Your task to perform on an android device: What's a good restaurant near me? Image 0: 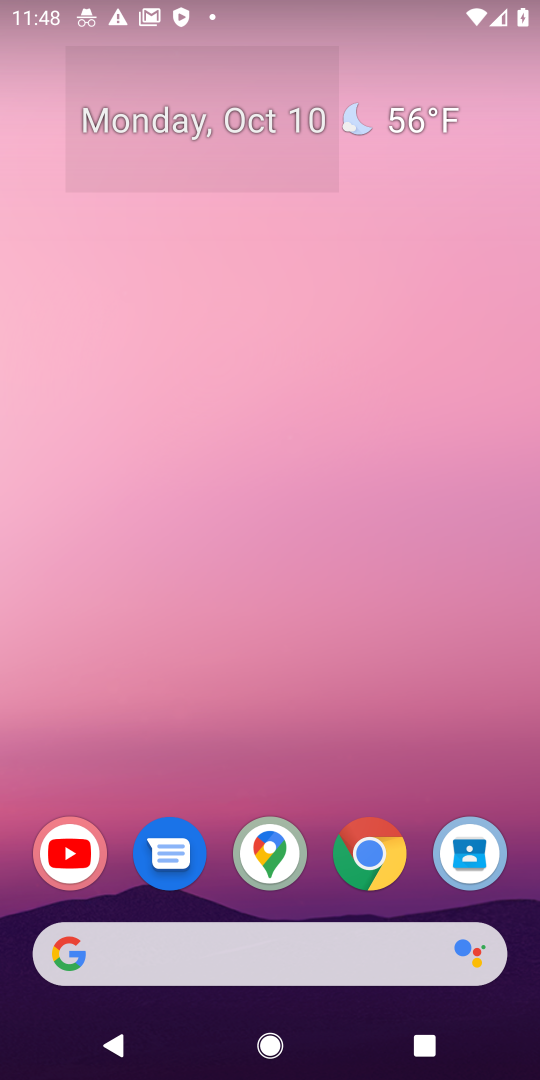
Step 0: click (256, 951)
Your task to perform on an android device: What's a good restaurant near me? Image 1: 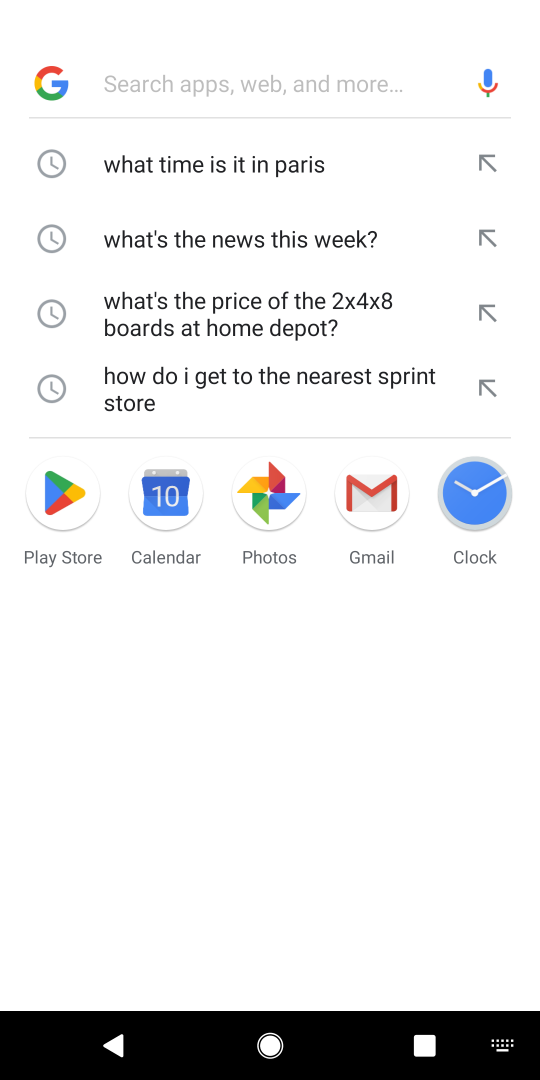
Step 1: type "What's a good restaurant near me"
Your task to perform on an android device: What's a good restaurant near me? Image 2: 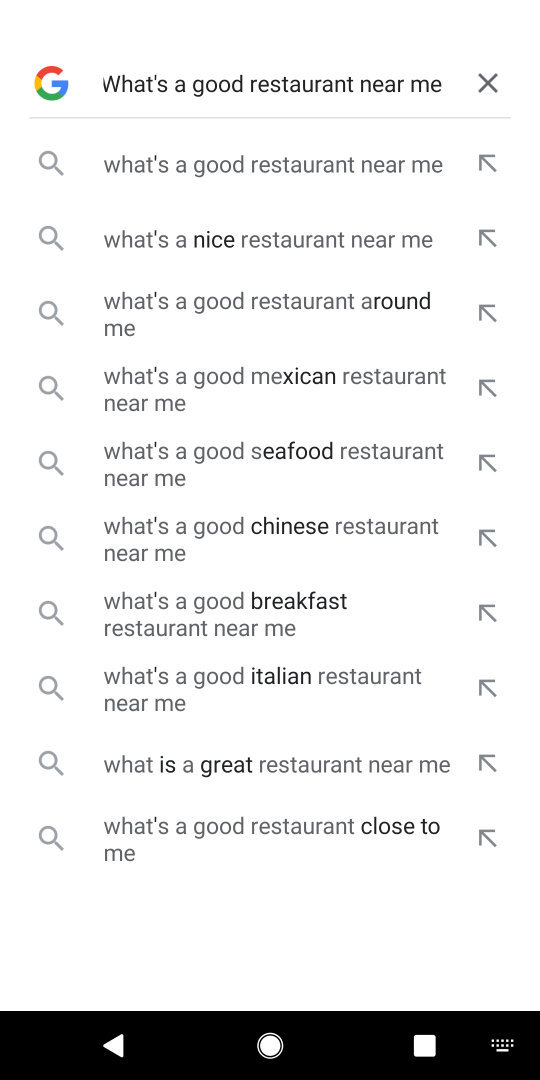
Step 2: press enter
Your task to perform on an android device: What's a good restaurant near me? Image 3: 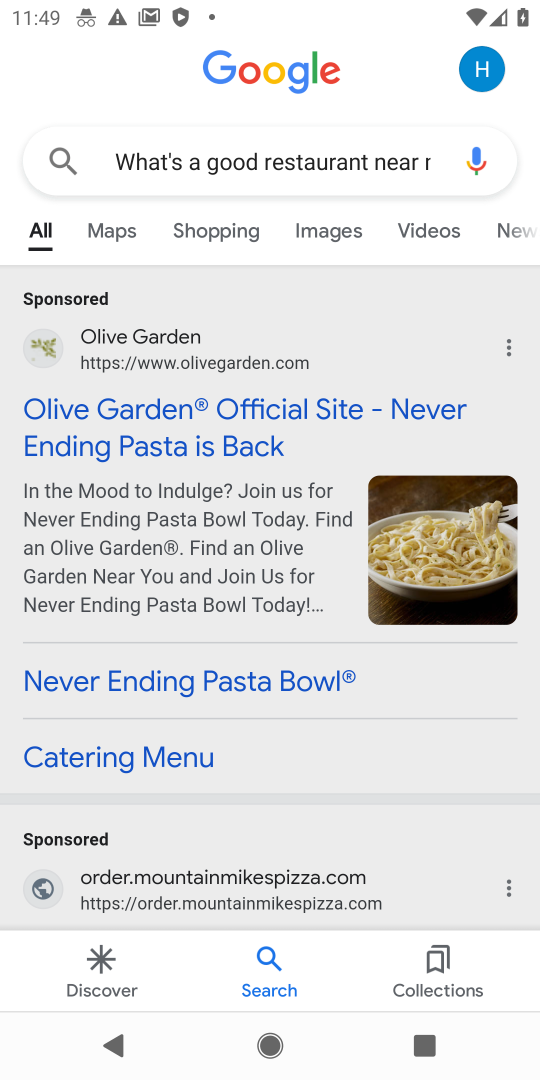
Step 3: drag from (328, 763) to (326, 548)
Your task to perform on an android device: What's a good restaurant near me? Image 4: 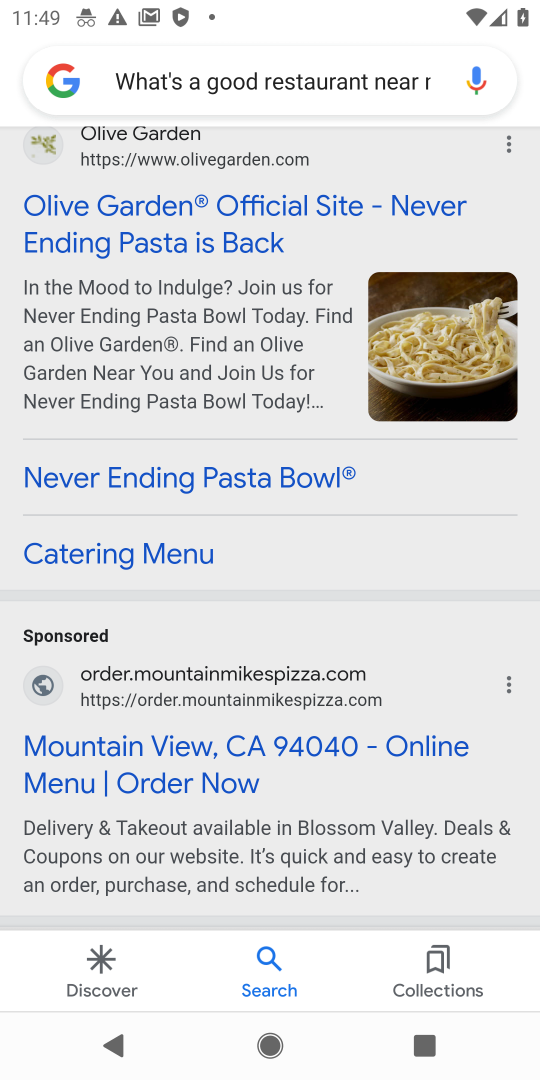
Step 4: drag from (282, 782) to (313, 392)
Your task to perform on an android device: What's a good restaurant near me? Image 5: 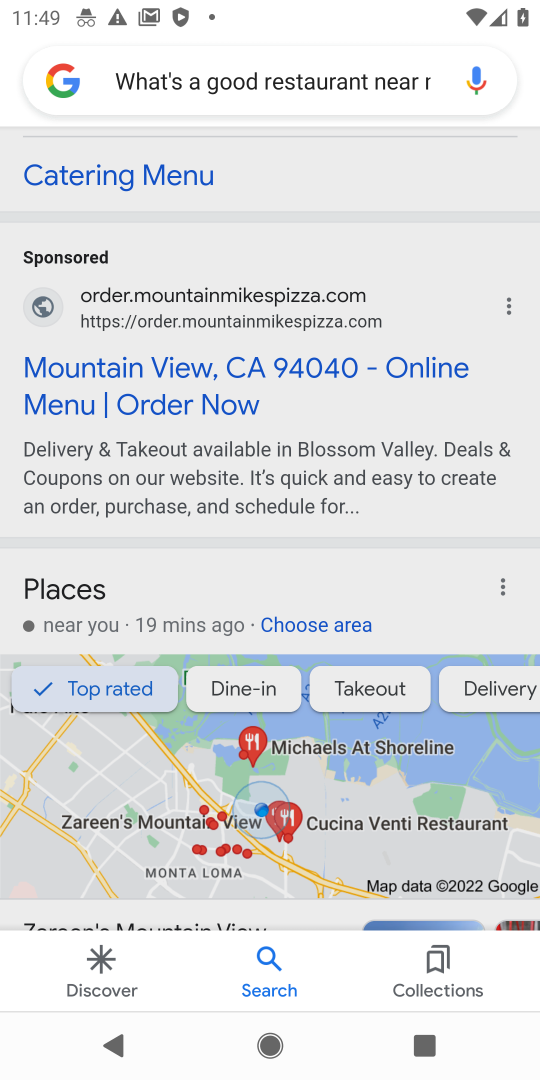
Step 5: drag from (277, 716) to (367, 333)
Your task to perform on an android device: What's a good restaurant near me? Image 6: 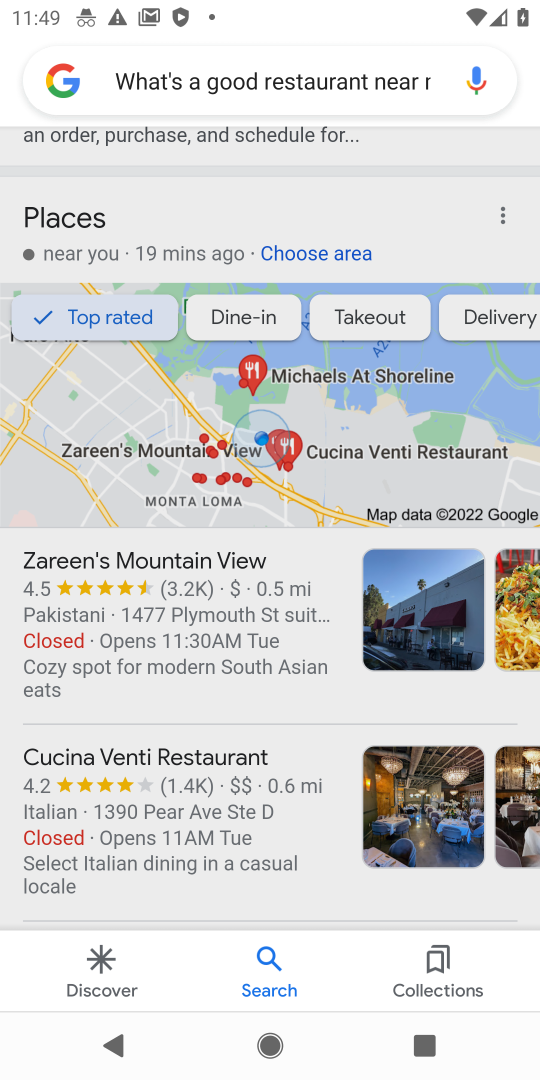
Step 6: drag from (235, 794) to (309, 408)
Your task to perform on an android device: What's a good restaurant near me? Image 7: 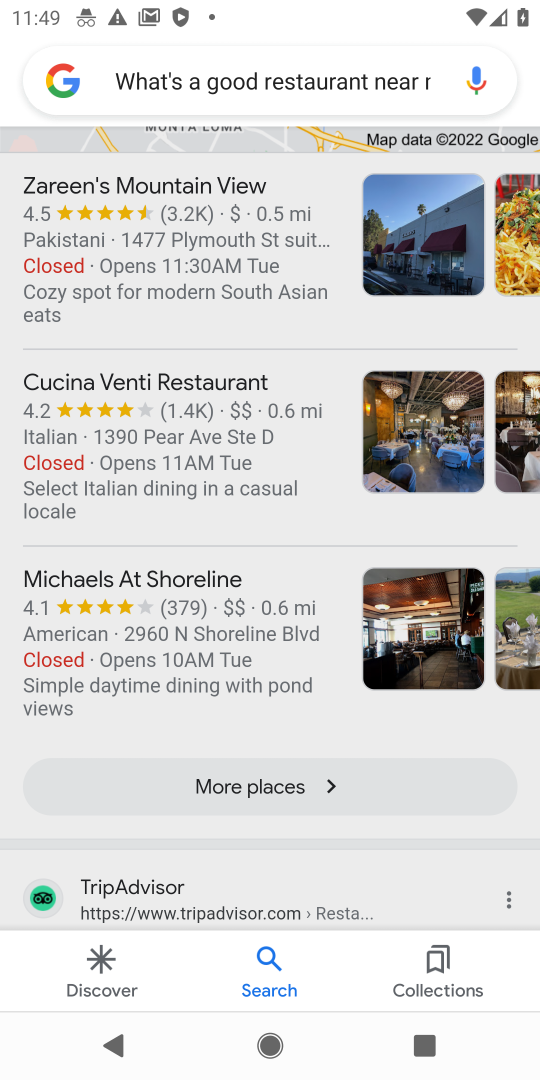
Step 7: click (277, 793)
Your task to perform on an android device: What's a good restaurant near me? Image 8: 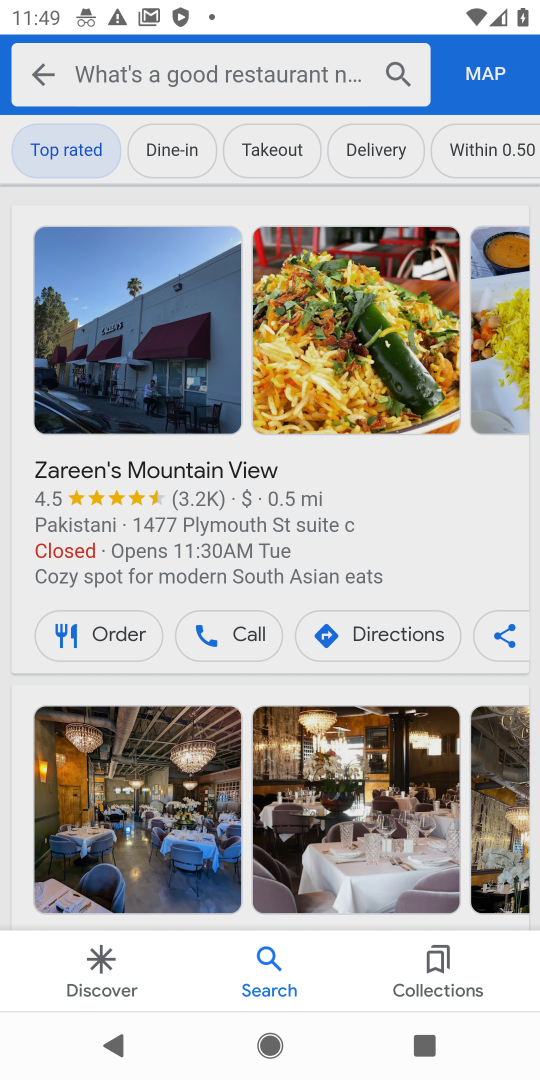
Step 8: task complete